Your task to perform on an android device: turn off javascript in the chrome app Image 0: 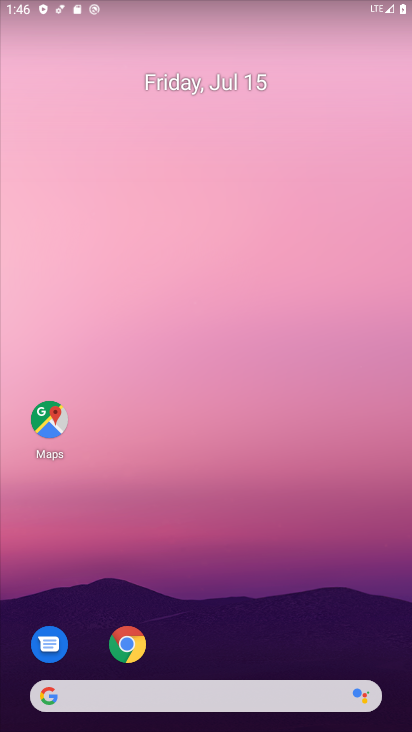
Step 0: click (262, 53)
Your task to perform on an android device: turn off javascript in the chrome app Image 1: 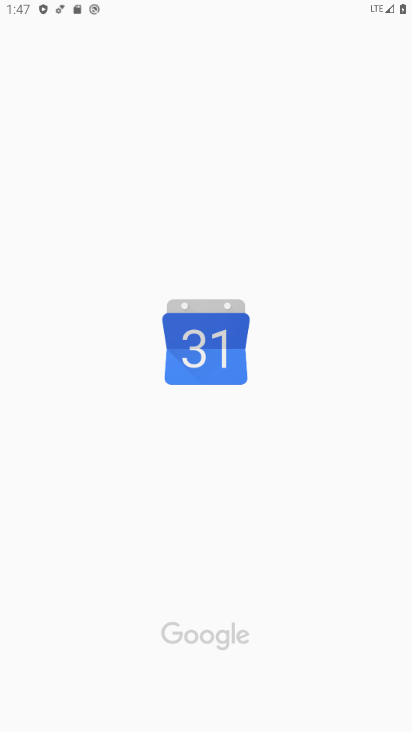
Step 1: press home button
Your task to perform on an android device: turn off javascript in the chrome app Image 2: 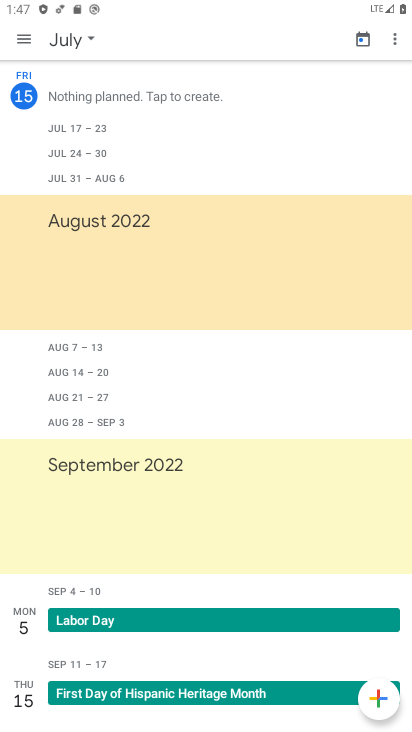
Step 2: drag from (368, 640) to (336, 90)
Your task to perform on an android device: turn off javascript in the chrome app Image 3: 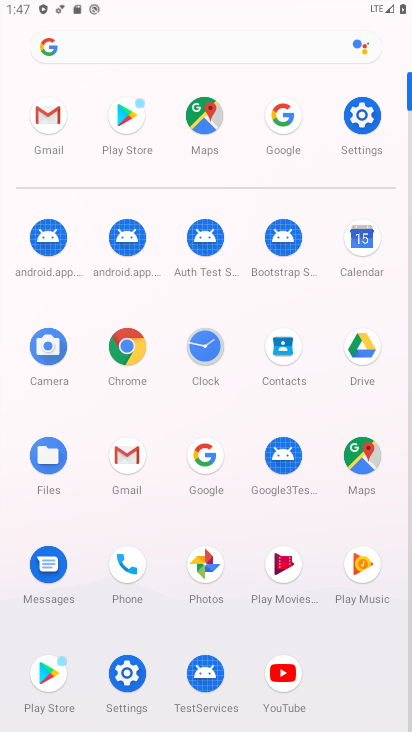
Step 3: click (132, 335)
Your task to perform on an android device: turn off javascript in the chrome app Image 4: 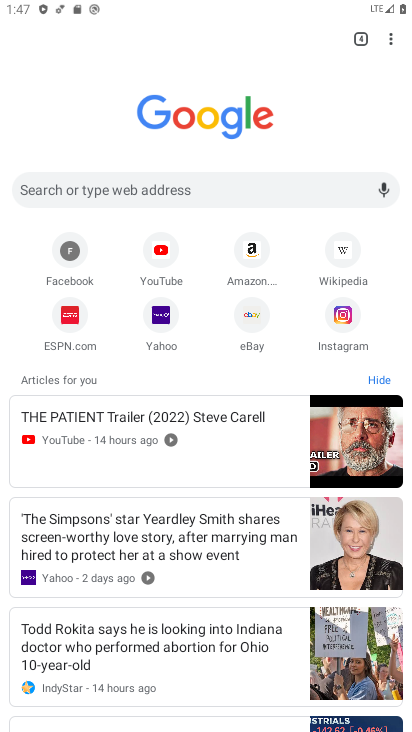
Step 4: click (392, 33)
Your task to perform on an android device: turn off javascript in the chrome app Image 5: 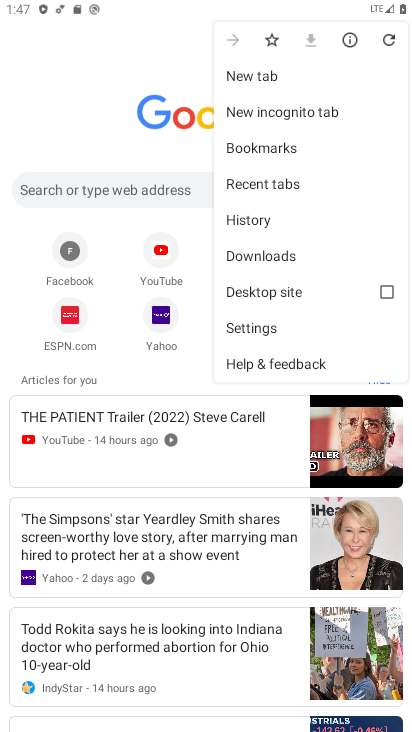
Step 5: click (283, 326)
Your task to perform on an android device: turn off javascript in the chrome app Image 6: 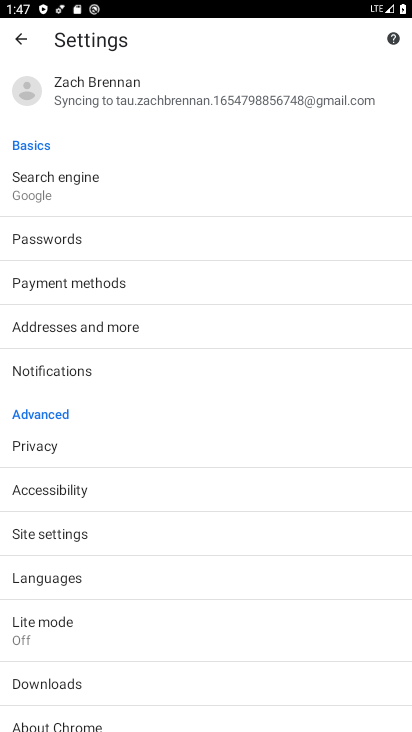
Step 6: click (112, 534)
Your task to perform on an android device: turn off javascript in the chrome app Image 7: 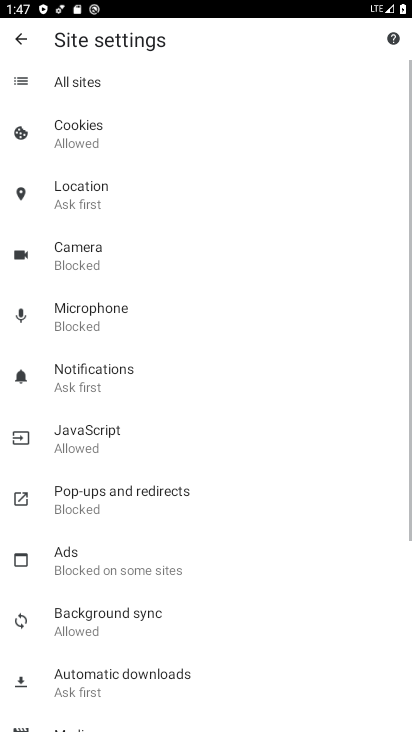
Step 7: click (89, 438)
Your task to perform on an android device: turn off javascript in the chrome app Image 8: 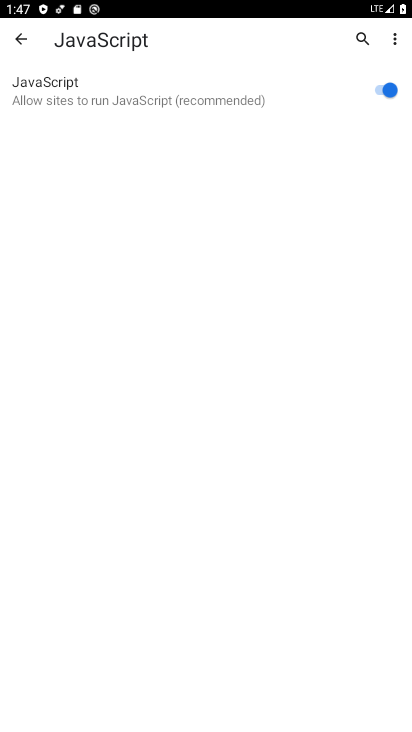
Step 8: click (360, 95)
Your task to perform on an android device: turn off javascript in the chrome app Image 9: 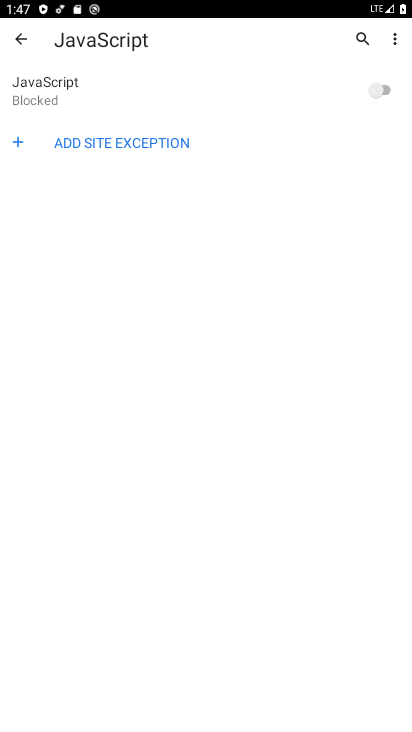
Step 9: task complete